Your task to perform on an android device: delete location history Image 0: 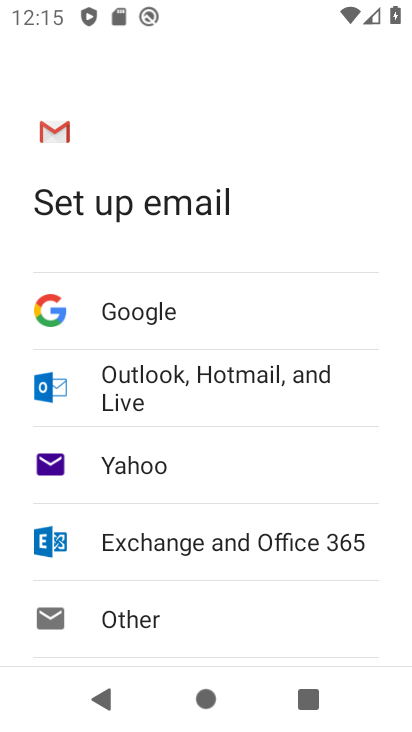
Step 0: press home button
Your task to perform on an android device: delete location history Image 1: 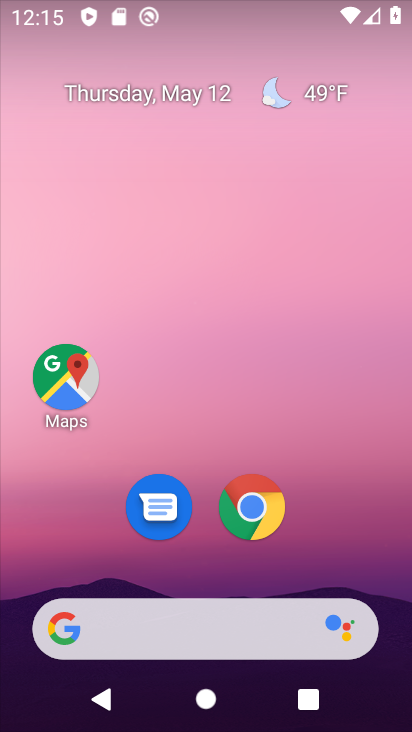
Step 1: drag from (299, 570) to (324, 110)
Your task to perform on an android device: delete location history Image 2: 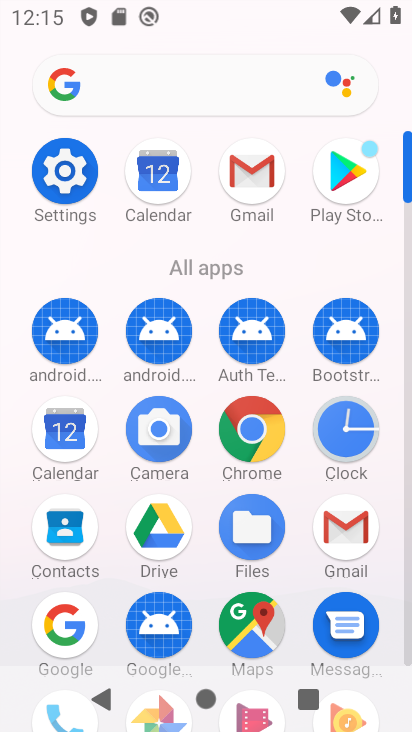
Step 2: click (245, 625)
Your task to perform on an android device: delete location history Image 3: 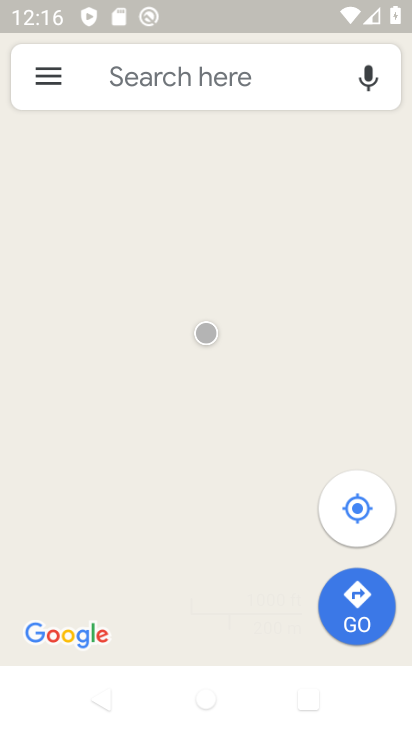
Step 3: click (56, 69)
Your task to perform on an android device: delete location history Image 4: 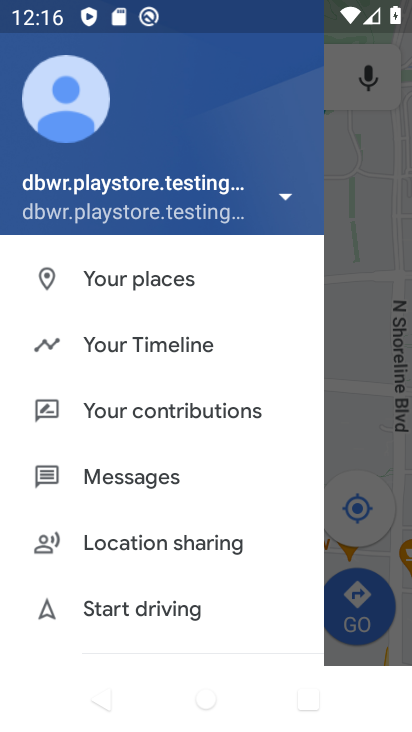
Step 4: click (163, 331)
Your task to perform on an android device: delete location history Image 5: 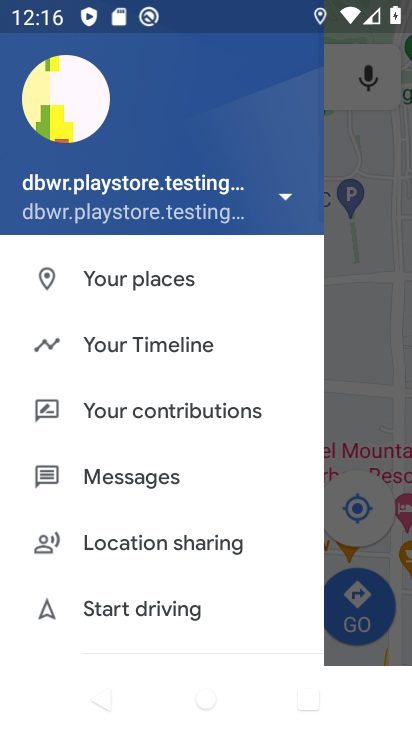
Step 5: click (166, 345)
Your task to perform on an android device: delete location history Image 6: 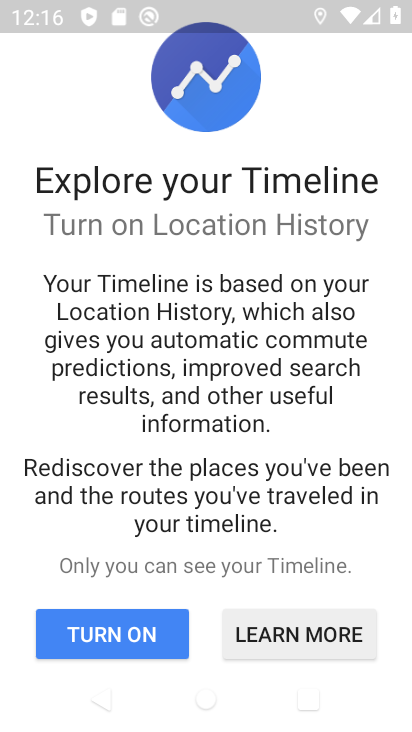
Step 6: drag from (188, 587) to (284, 256)
Your task to perform on an android device: delete location history Image 7: 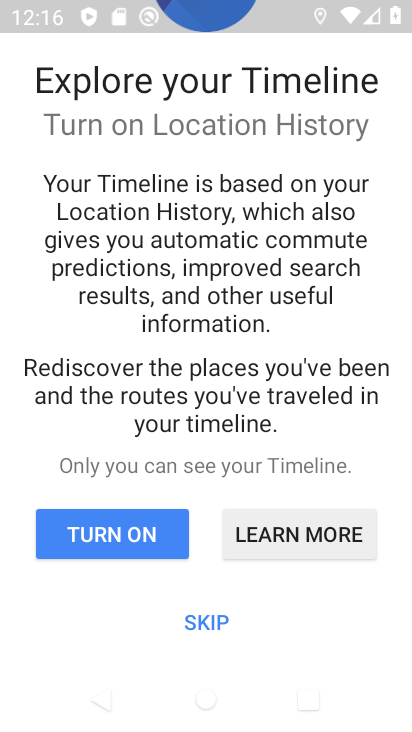
Step 7: click (194, 628)
Your task to perform on an android device: delete location history Image 8: 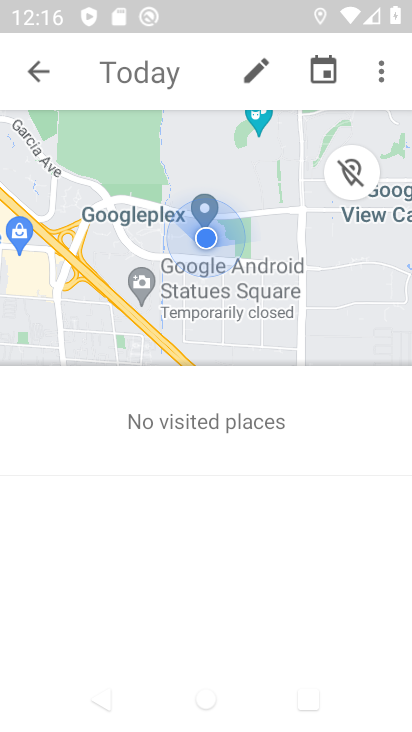
Step 8: click (383, 76)
Your task to perform on an android device: delete location history Image 9: 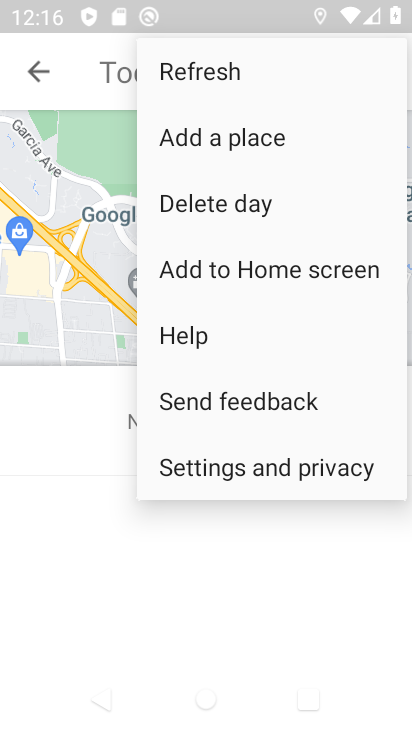
Step 9: click (197, 470)
Your task to perform on an android device: delete location history Image 10: 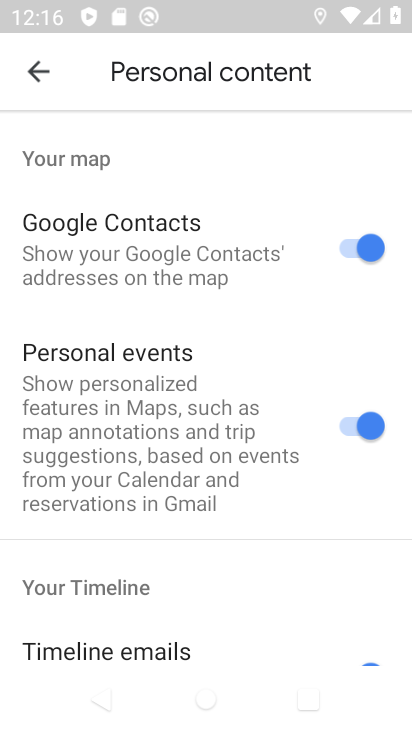
Step 10: drag from (188, 567) to (168, 364)
Your task to perform on an android device: delete location history Image 11: 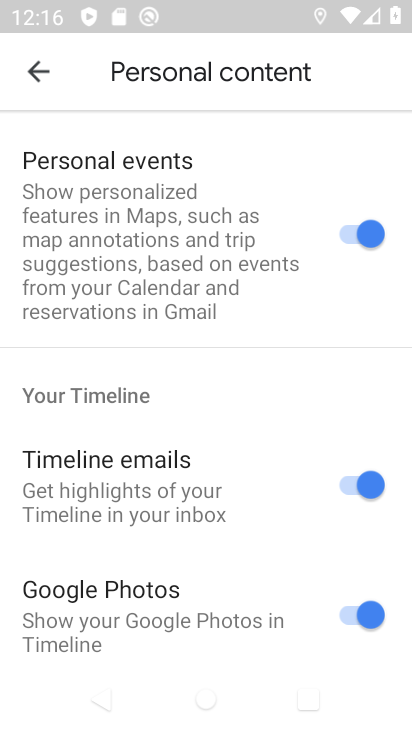
Step 11: drag from (136, 551) to (165, 314)
Your task to perform on an android device: delete location history Image 12: 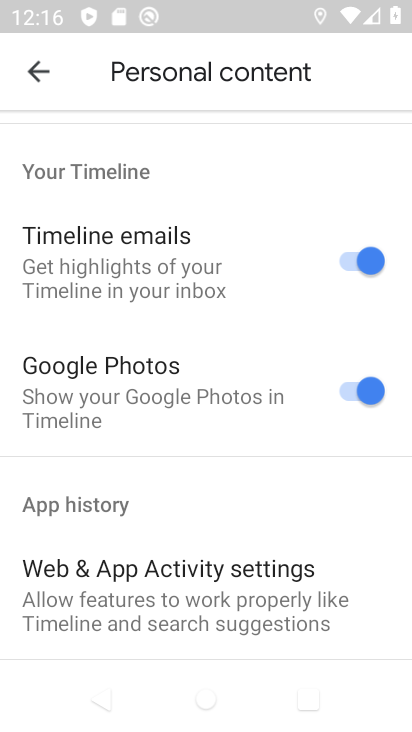
Step 12: drag from (140, 575) to (171, 291)
Your task to perform on an android device: delete location history Image 13: 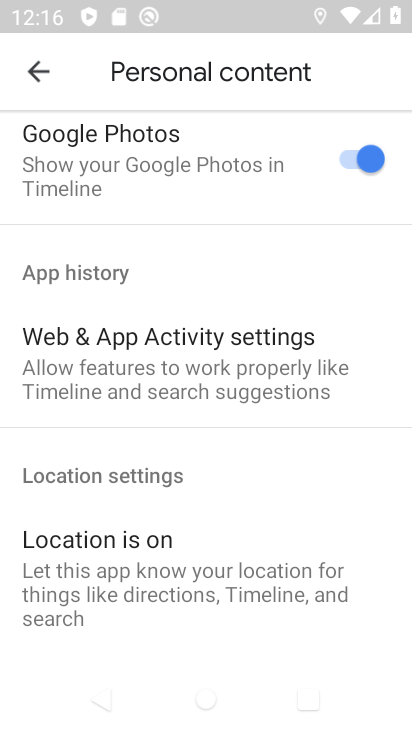
Step 13: drag from (152, 612) to (208, 333)
Your task to perform on an android device: delete location history Image 14: 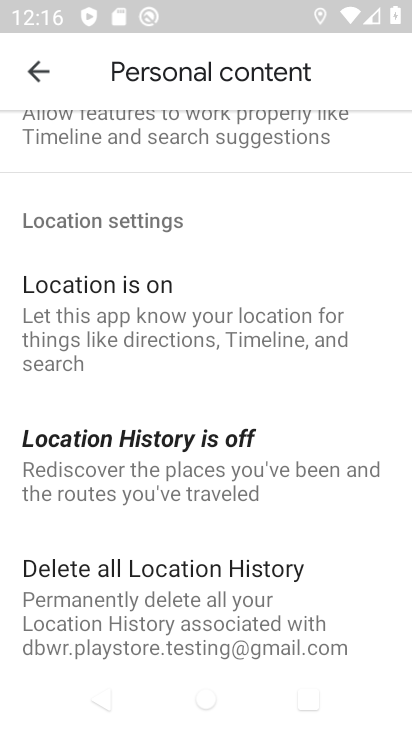
Step 14: click (159, 596)
Your task to perform on an android device: delete location history Image 15: 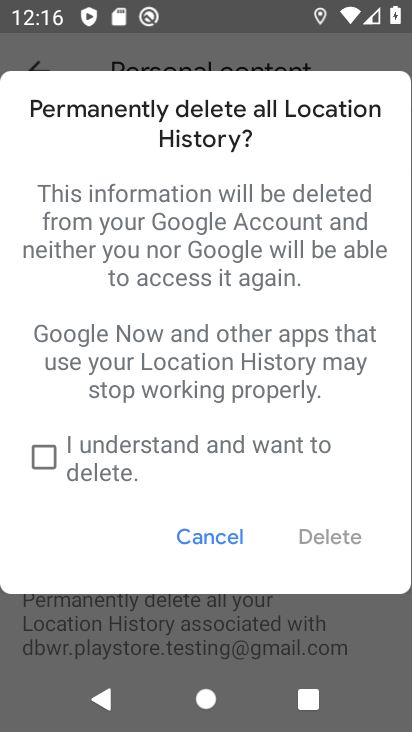
Step 15: click (63, 463)
Your task to perform on an android device: delete location history Image 16: 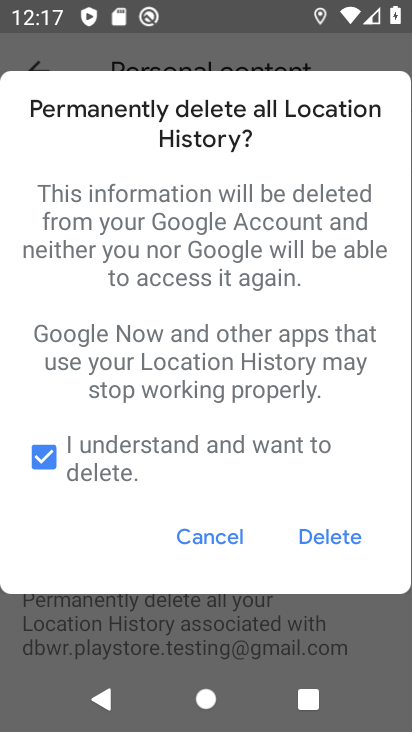
Step 16: click (303, 540)
Your task to perform on an android device: delete location history Image 17: 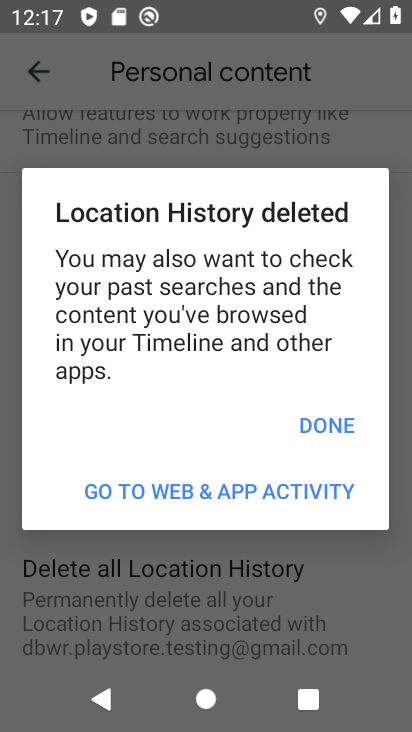
Step 17: click (326, 427)
Your task to perform on an android device: delete location history Image 18: 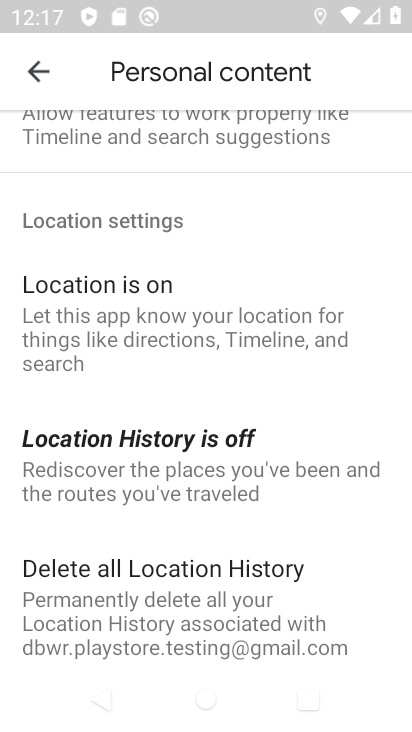
Step 18: task complete